Your task to perform on an android device: turn on javascript in the chrome app Image 0: 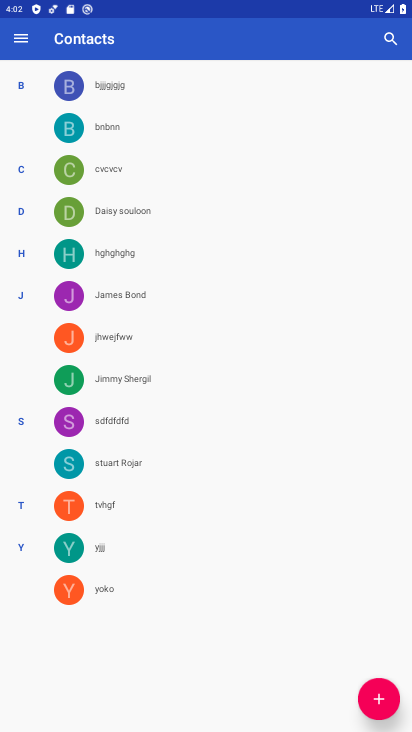
Step 0: press back button
Your task to perform on an android device: turn on javascript in the chrome app Image 1: 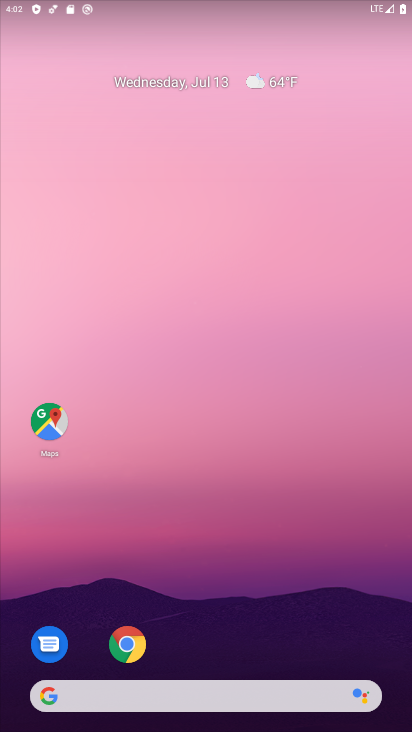
Step 1: click (130, 647)
Your task to perform on an android device: turn on javascript in the chrome app Image 2: 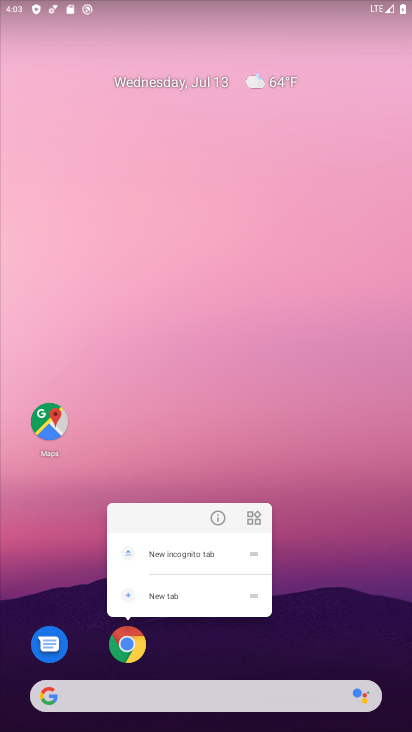
Step 2: click (130, 647)
Your task to perform on an android device: turn on javascript in the chrome app Image 3: 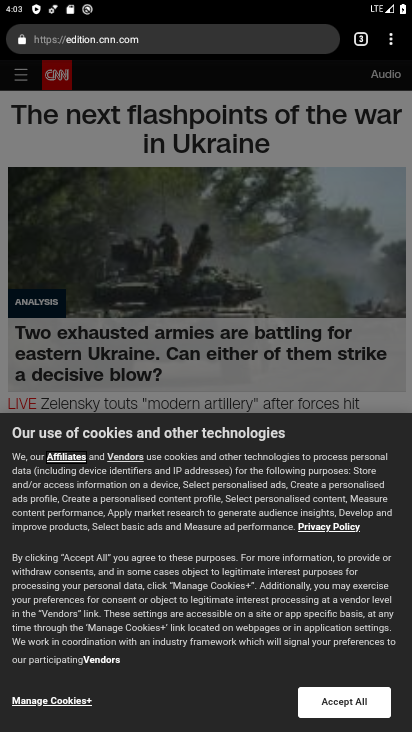
Step 3: drag from (396, 34) to (256, 431)
Your task to perform on an android device: turn on javascript in the chrome app Image 4: 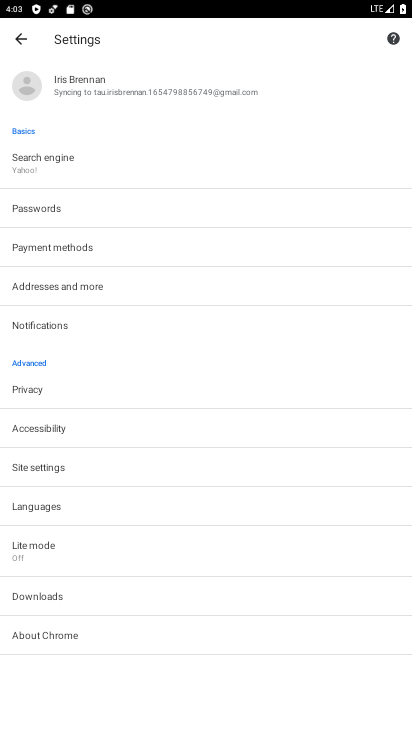
Step 4: click (57, 467)
Your task to perform on an android device: turn on javascript in the chrome app Image 5: 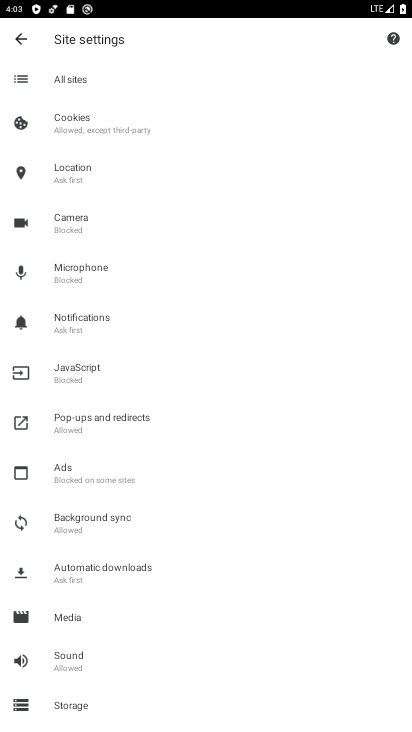
Step 5: click (93, 366)
Your task to perform on an android device: turn on javascript in the chrome app Image 6: 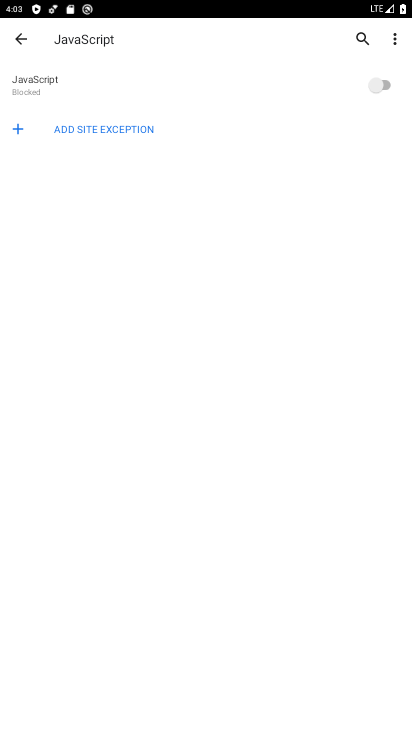
Step 6: click (370, 91)
Your task to perform on an android device: turn on javascript in the chrome app Image 7: 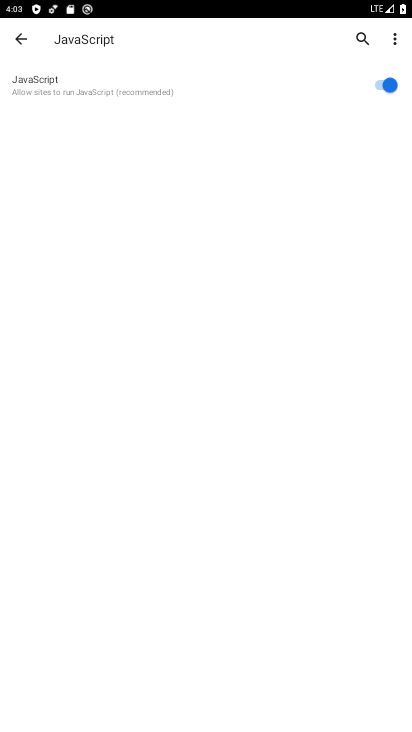
Step 7: task complete